Your task to perform on an android device: clear history in the chrome app Image 0: 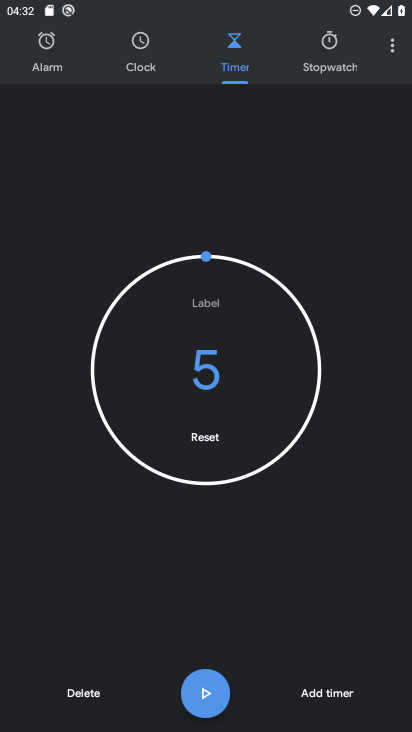
Step 0: press home button
Your task to perform on an android device: clear history in the chrome app Image 1: 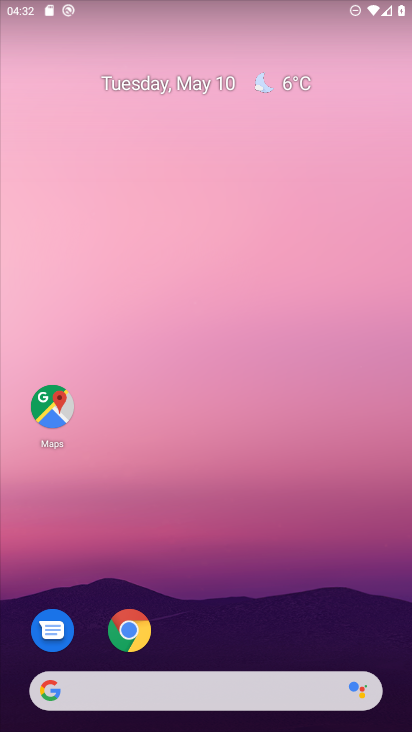
Step 1: click (126, 631)
Your task to perform on an android device: clear history in the chrome app Image 2: 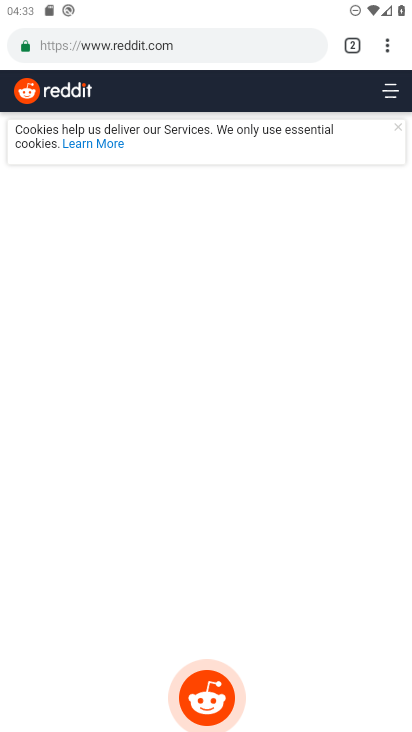
Step 2: click (382, 42)
Your task to perform on an android device: clear history in the chrome app Image 3: 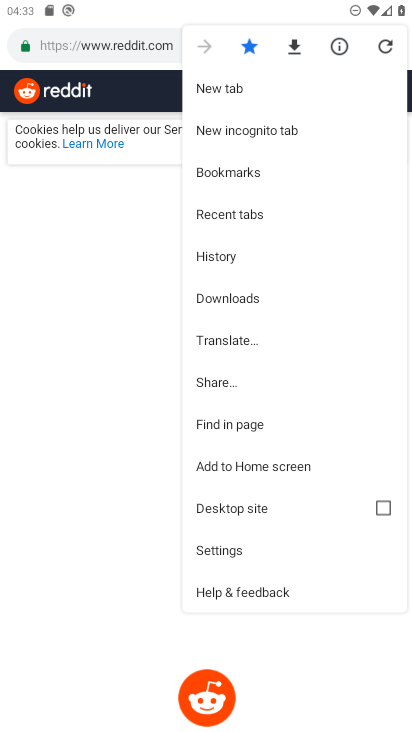
Step 3: click (287, 254)
Your task to perform on an android device: clear history in the chrome app Image 4: 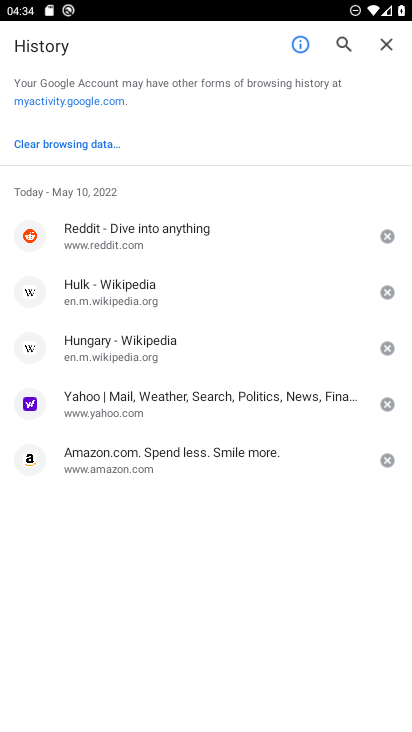
Step 4: click (150, 144)
Your task to perform on an android device: clear history in the chrome app Image 5: 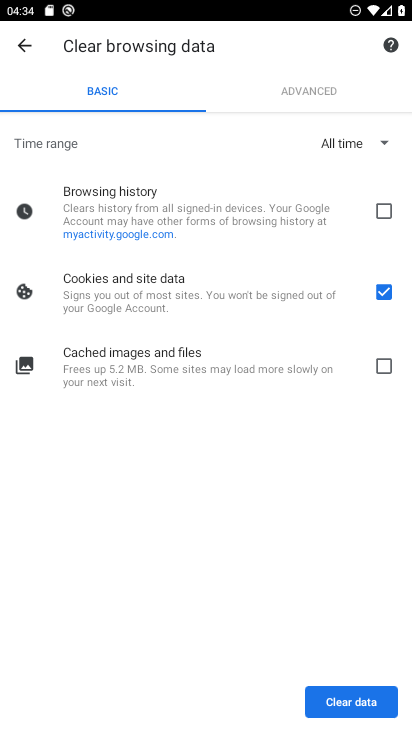
Step 5: click (388, 205)
Your task to perform on an android device: clear history in the chrome app Image 6: 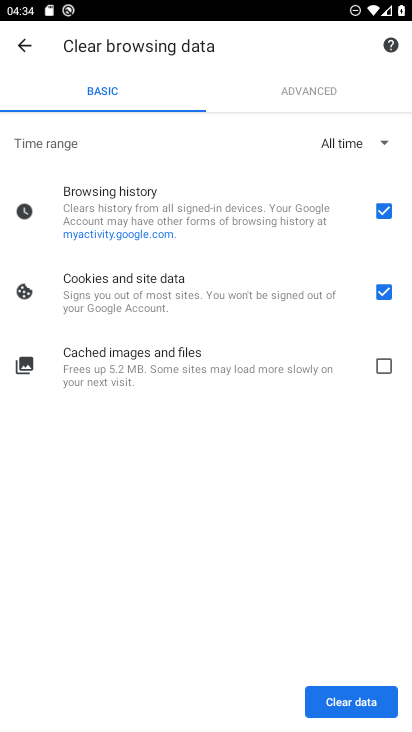
Step 6: click (364, 695)
Your task to perform on an android device: clear history in the chrome app Image 7: 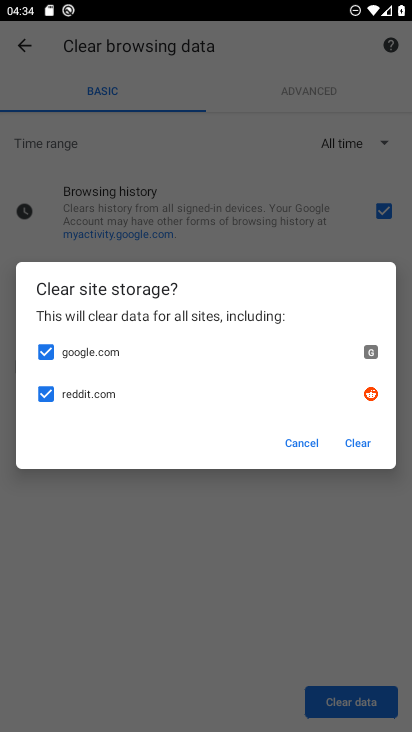
Step 7: click (350, 455)
Your task to perform on an android device: clear history in the chrome app Image 8: 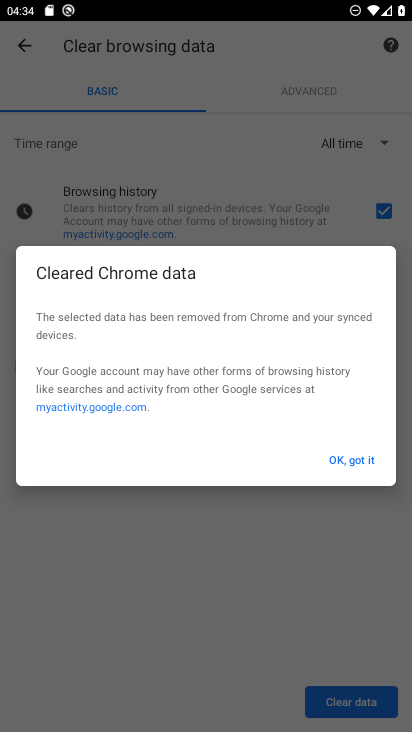
Step 8: click (350, 455)
Your task to perform on an android device: clear history in the chrome app Image 9: 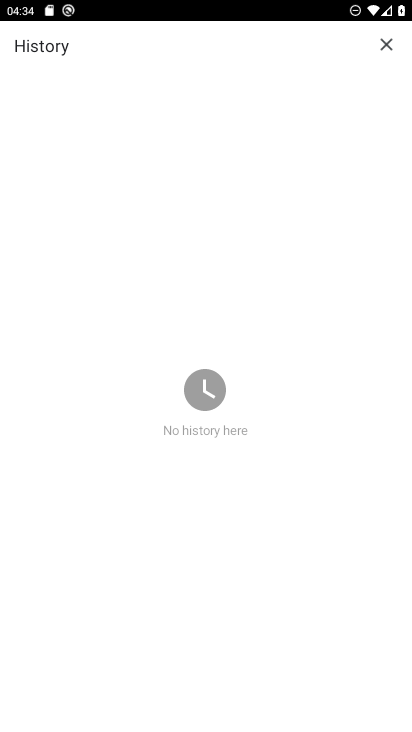
Step 9: task complete